Your task to perform on an android device: Go to Google maps Image 0: 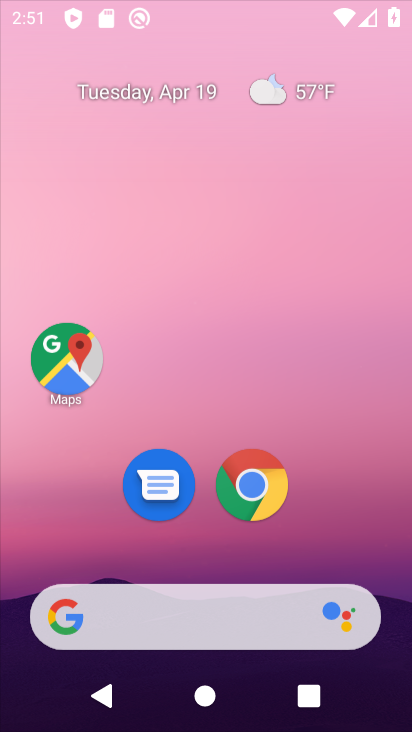
Step 0: drag from (351, 409) to (339, 168)
Your task to perform on an android device: Go to Google maps Image 1: 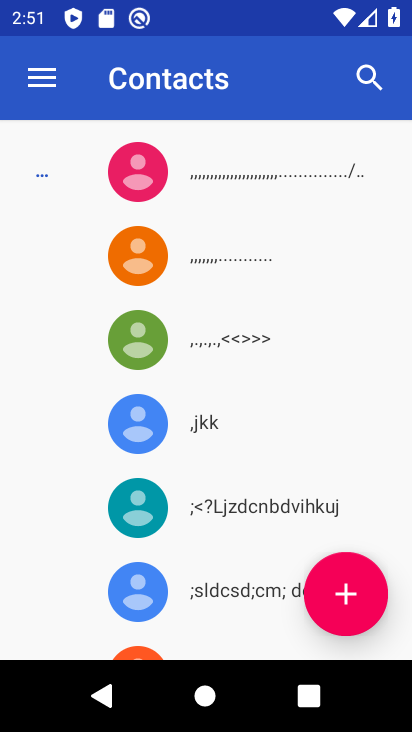
Step 1: press home button
Your task to perform on an android device: Go to Google maps Image 2: 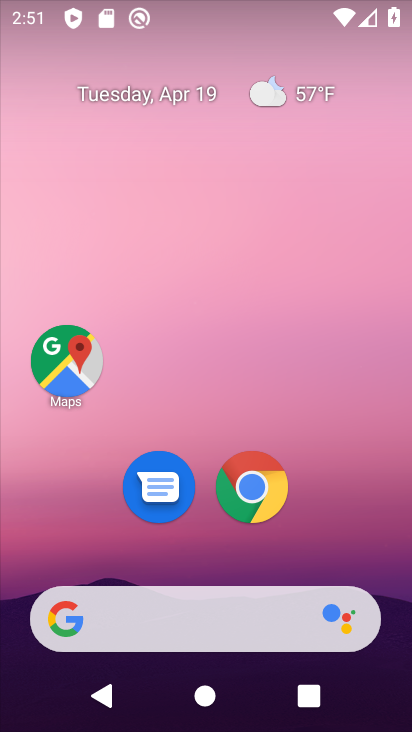
Step 2: click (63, 370)
Your task to perform on an android device: Go to Google maps Image 3: 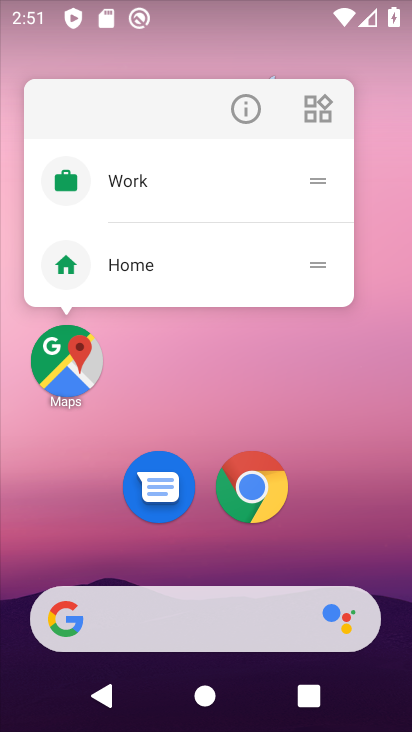
Step 3: click (64, 372)
Your task to perform on an android device: Go to Google maps Image 4: 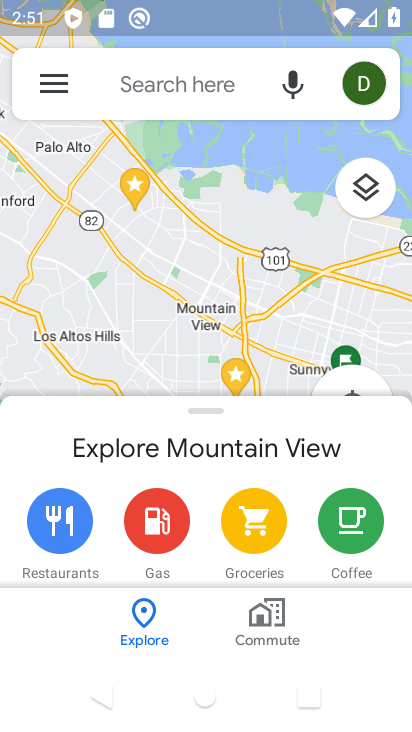
Step 4: click (153, 79)
Your task to perform on an android device: Go to Google maps Image 5: 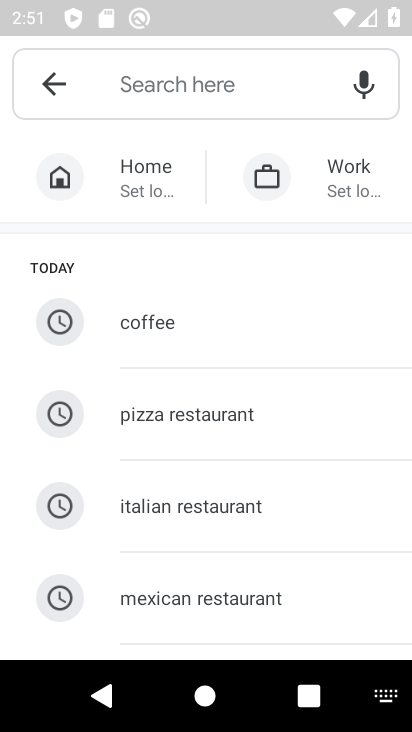
Step 5: click (60, 89)
Your task to perform on an android device: Go to Google maps Image 6: 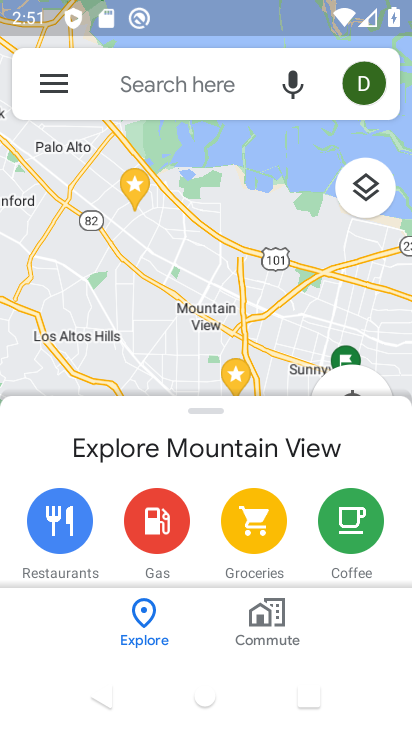
Step 6: task complete